Your task to perform on an android device: see tabs open on other devices in the chrome app Image 0: 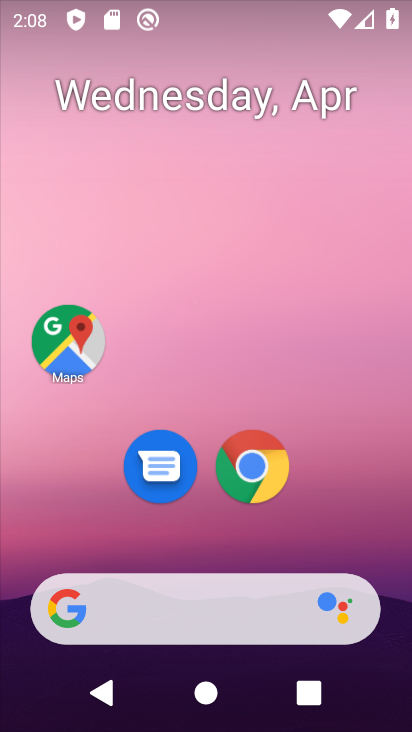
Step 0: drag from (282, 452) to (263, 183)
Your task to perform on an android device: see tabs open on other devices in the chrome app Image 1: 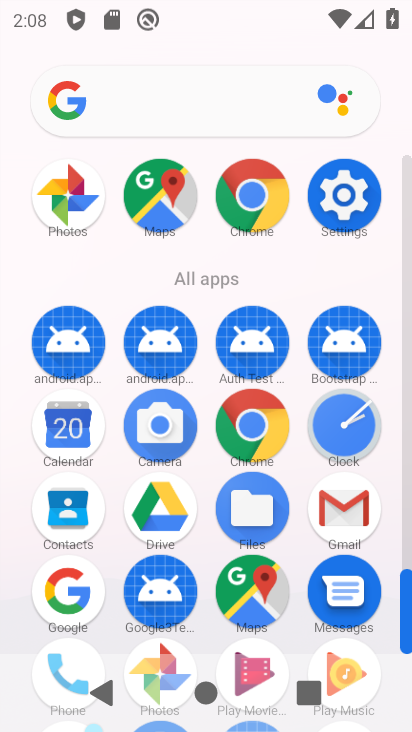
Step 1: click (249, 192)
Your task to perform on an android device: see tabs open on other devices in the chrome app Image 2: 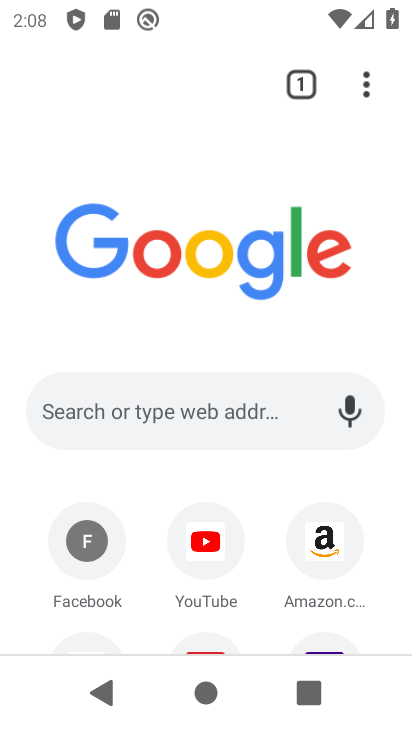
Step 2: click (363, 92)
Your task to perform on an android device: see tabs open on other devices in the chrome app Image 3: 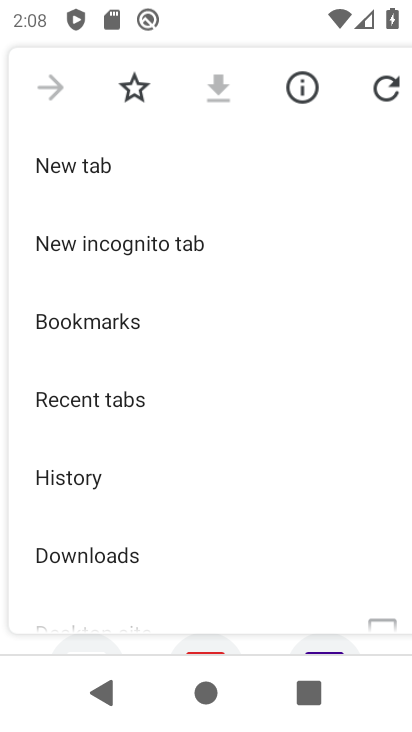
Step 3: click (138, 323)
Your task to perform on an android device: see tabs open on other devices in the chrome app Image 4: 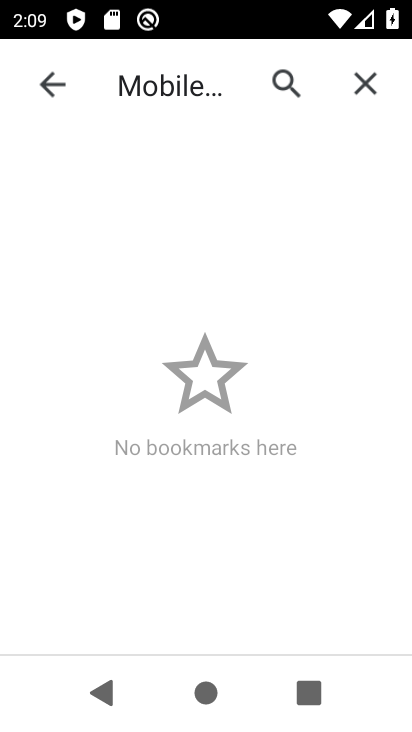
Step 4: task complete